Your task to perform on an android device: Open Youtube and go to "Your channel" Image 0: 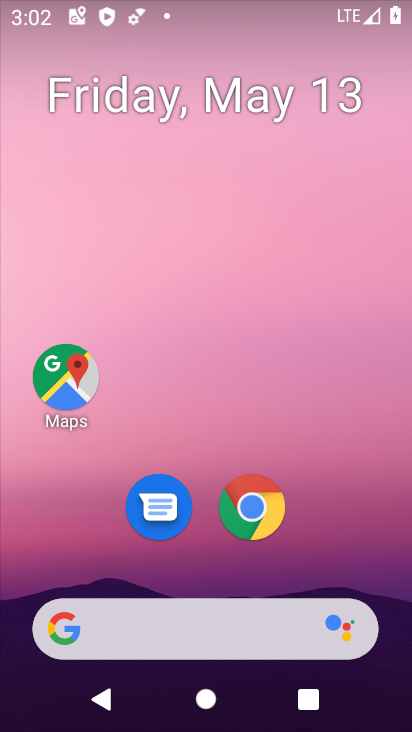
Step 0: drag from (329, 528) to (281, 0)
Your task to perform on an android device: Open Youtube and go to "Your channel" Image 1: 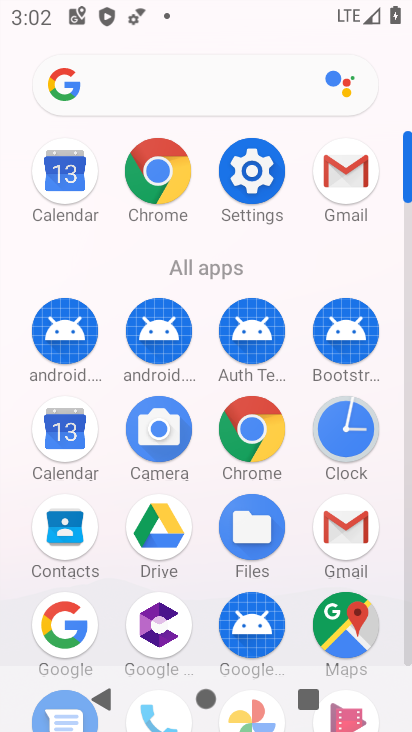
Step 1: drag from (217, 535) to (264, 61)
Your task to perform on an android device: Open Youtube and go to "Your channel" Image 2: 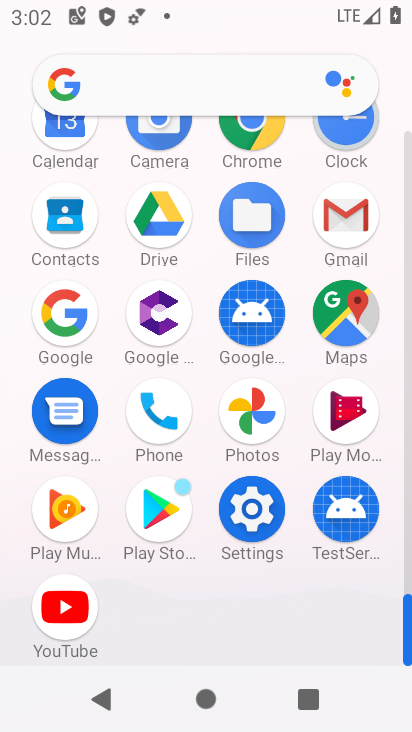
Step 2: click (77, 582)
Your task to perform on an android device: Open Youtube and go to "Your channel" Image 3: 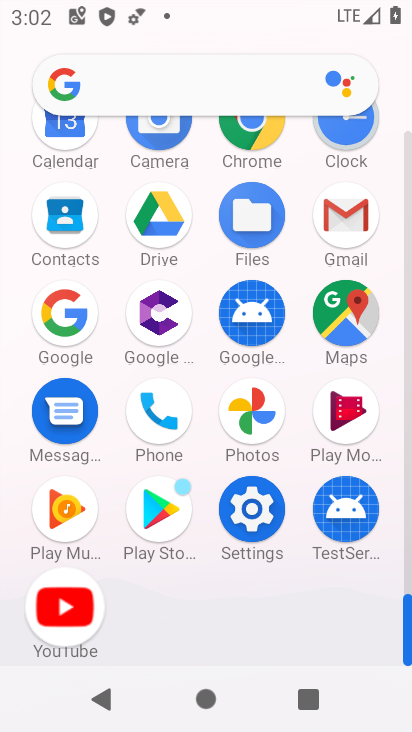
Step 3: click (78, 579)
Your task to perform on an android device: Open Youtube and go to "Your channel" Image 4: 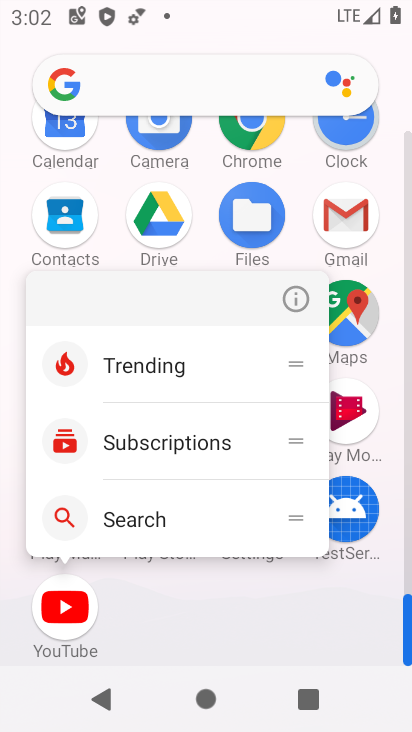
Step 4: click (78, 618)
Your task to perform on an android device: Open Youtube and go to "Your channel" Image 5: 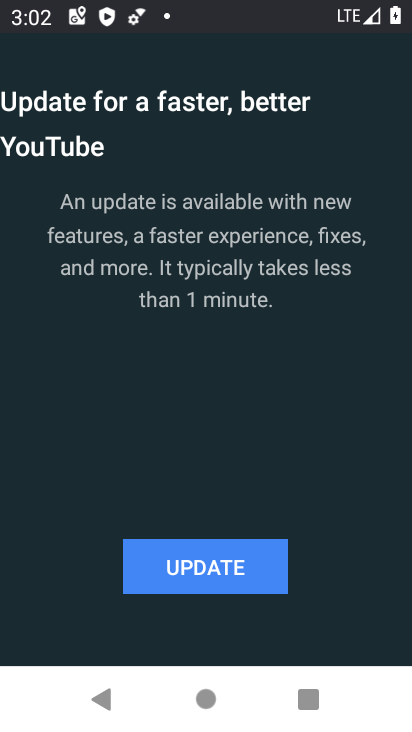
Step 5: click (229, 577)
Your task to perform on an android device: Open Youtube and go to "Your channel" Image 6: 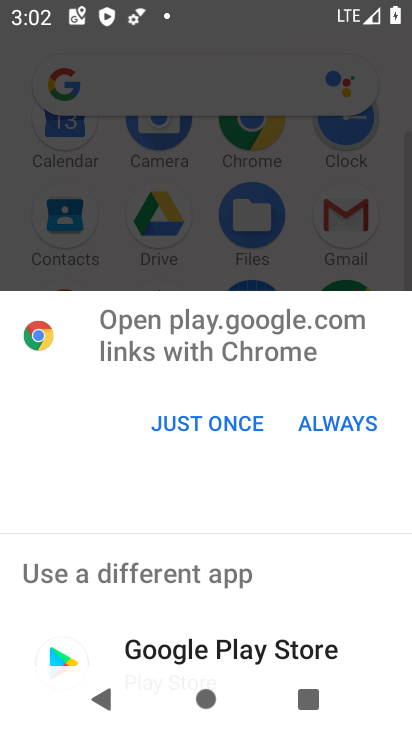
Step 6: click (232, 419)
Your task to perform on an android device: Open Youtube and go to "Your channel" Image 7: 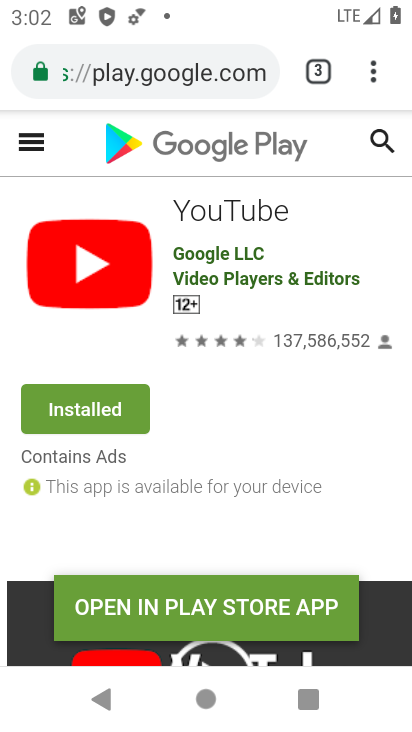
Step 7: drag from (259, 597) to (267, 353)
Your task to perform on an android device: Open Youtube and go to "Your channel" Image 8: 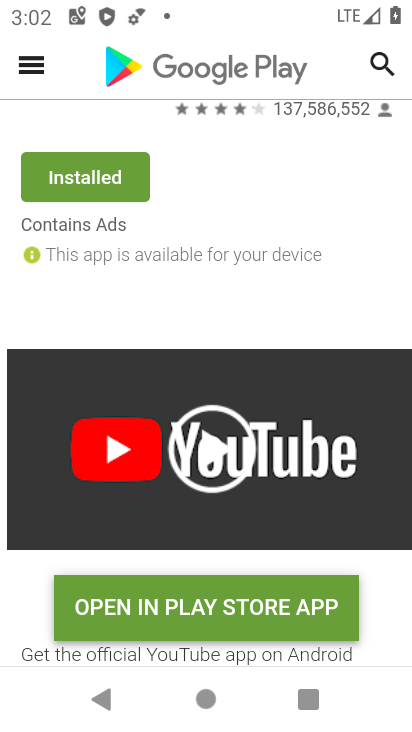
Step 8: click (183, 624)
Your task to perform on an android device: Open Youtube and go to "Your channel" Image 9: 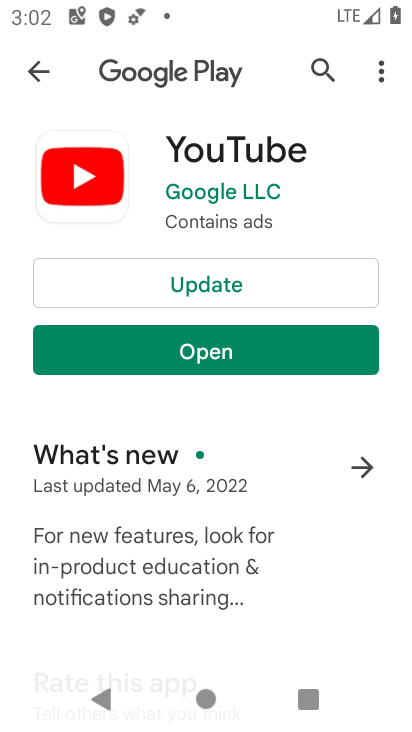
Step 9: click (243, 284)
Your task to perform on an android device: Open Youtube and go to "Your channel" Image 10: 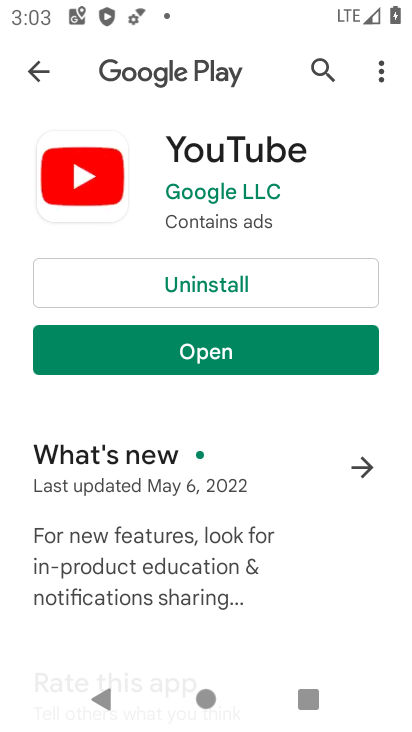
Step 10: click (278, 350)
Your task to perform on an android device: Open Youtube and go to "Your channel" Image 11: 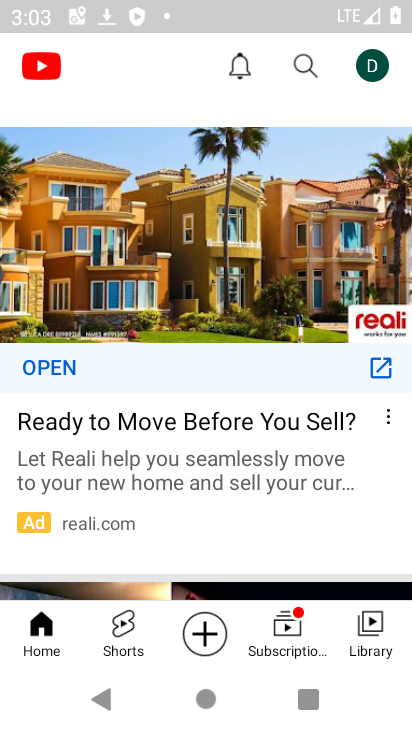
Step 11: click (375, 50)
Your task to perform on an android device: Open Youtube and go to "Your channel" Image 12: 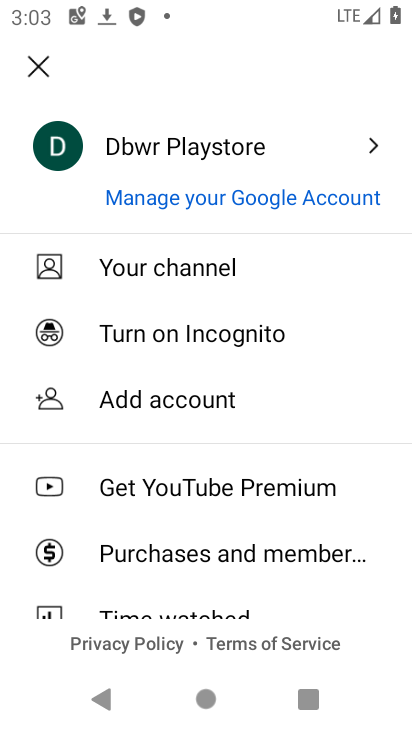
Step 12: click (143, 272)
Your task to perform on an android device: Open Youtube and go to "Your channel" Image 13: 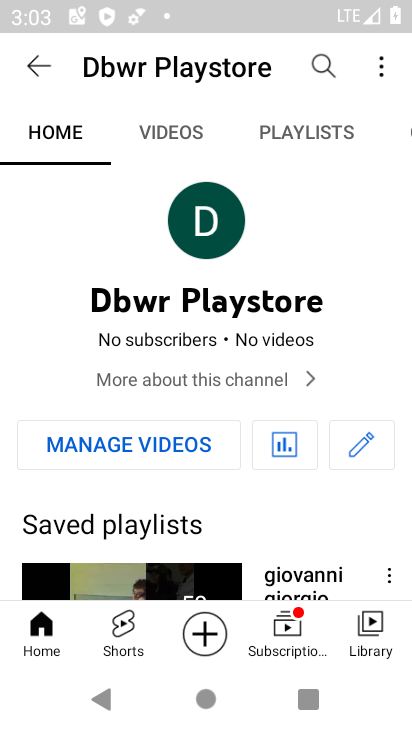
Step 13: task complete